Your task to perform on an android device: Is it going to rain tomorrow? Image 0: 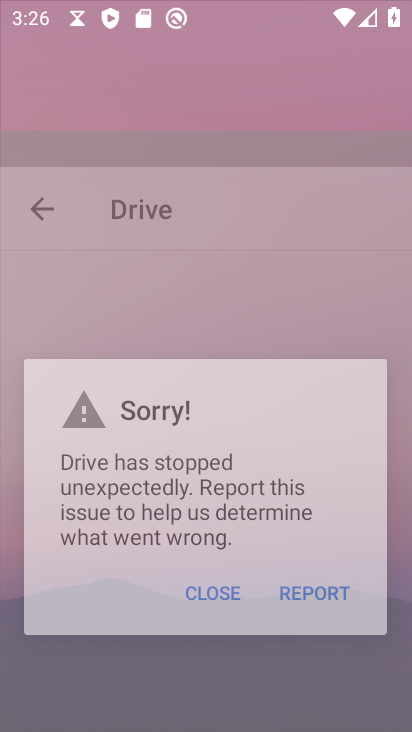
Step 0: click (221, 76)
Your task to perform on an android device: Is it going to rain tomorrow? Image 1: 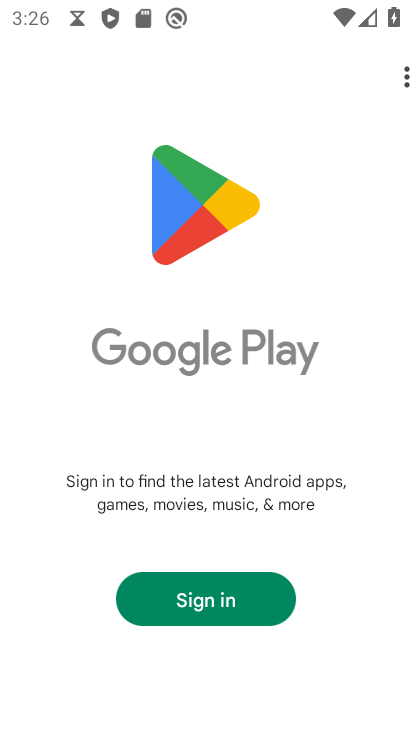
Step 1: press back button
Your task to perform on an android device: Is it going to rain tomorrow? Image 2: 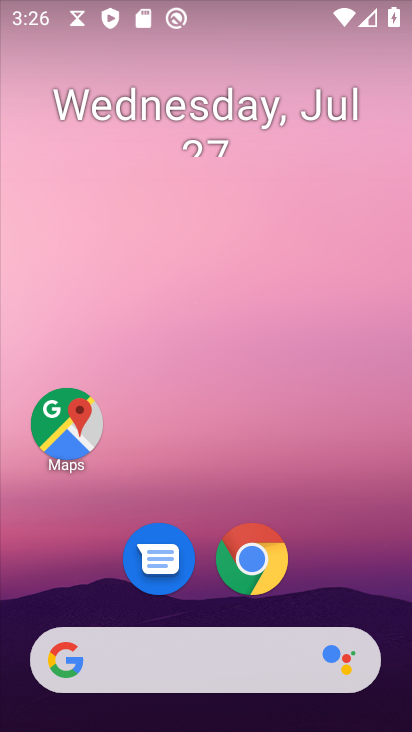
Step 2: click (129, 659)
Your task to perform on an android device: Is it going to rain tomorrow? Image 3: 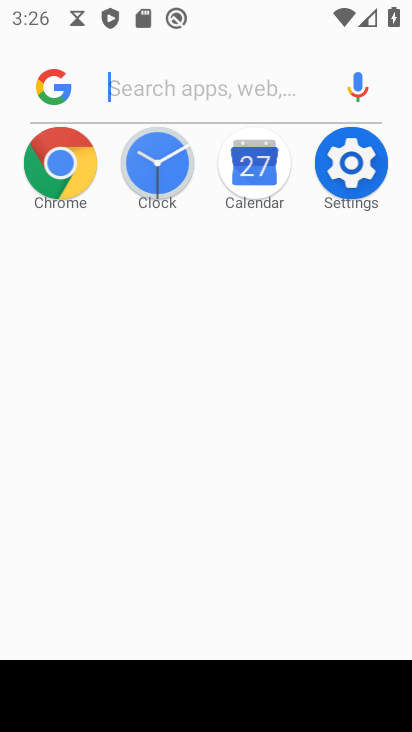
Step 3: click (162, 83)
Your task to perform on an android device: Is it going to rain tomorrow? Image 4: 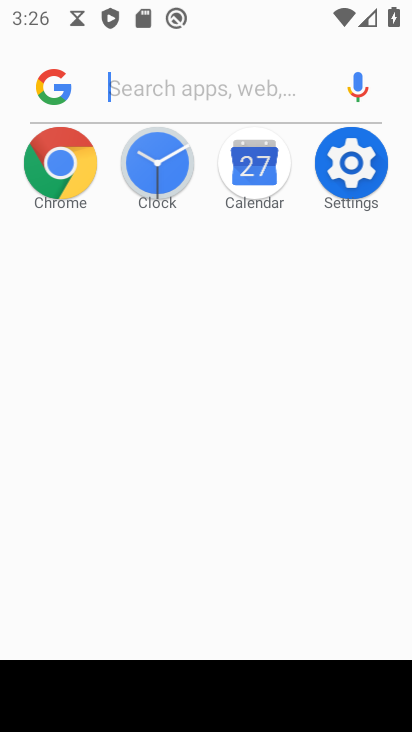
Step 4: type "weather"
Your task to perform on an android device: Is it going to rain tomorrow? Image 5: 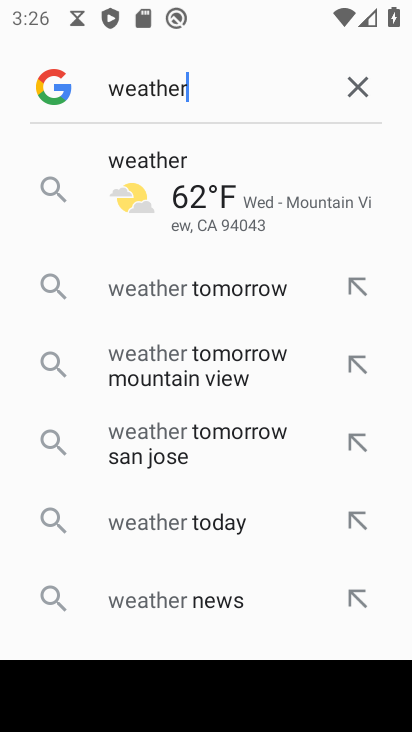
Step 5: click (244, 218)
Your task to perform on an android device: Is it going to rain tomorrow? Image 6: 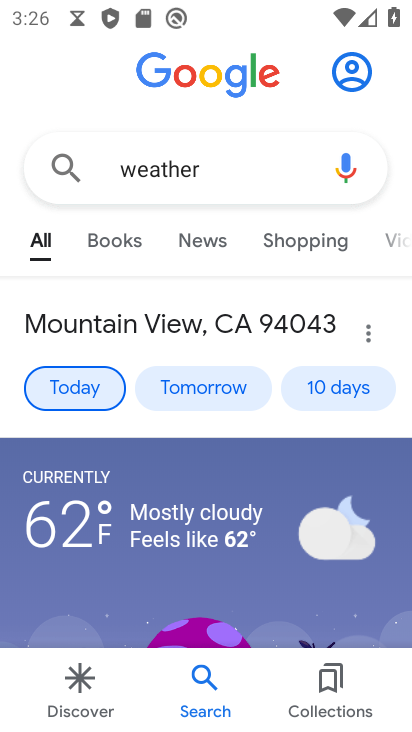
Step 6: click (196, 389)
Your task to perform on an android device: Is it going to rain tomorrow? Image 7: 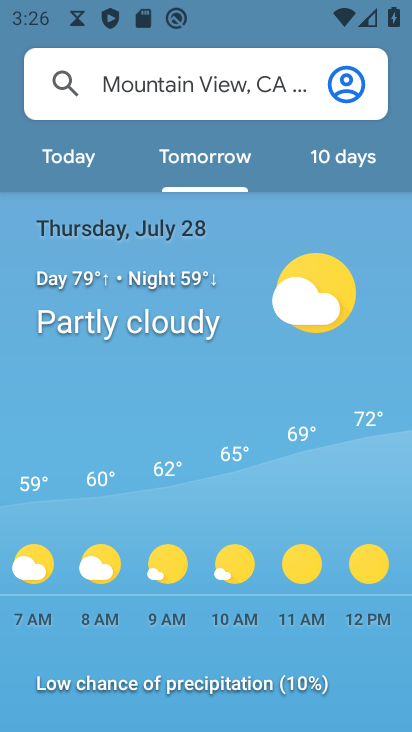
Step 7: task complete